Your task to perform on an android device: change the upload size in google photos Image 0: 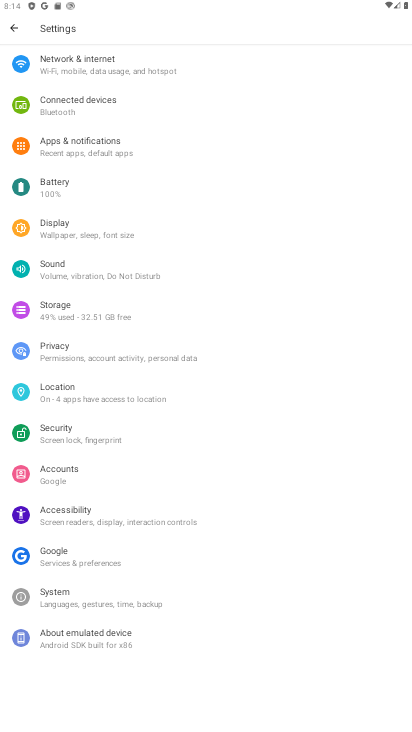
Step 0: press home button
Your task to perform on an android device: change the upload size in google photos Image 1: 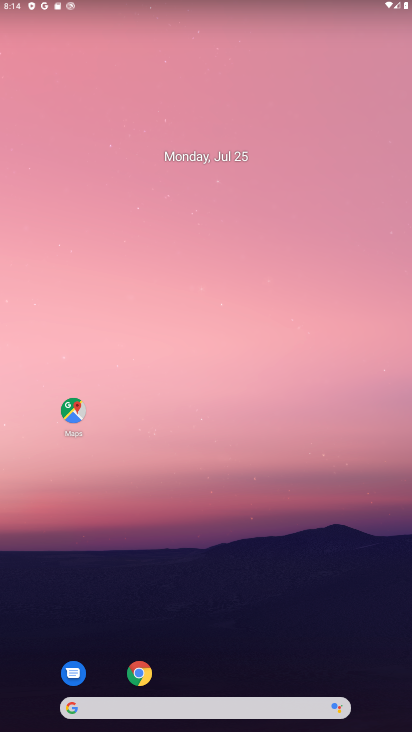
Step 1: drag from (216, 685) to (169, 14)
Your task to perform on an android device: change the upload size in google photos Image 2: 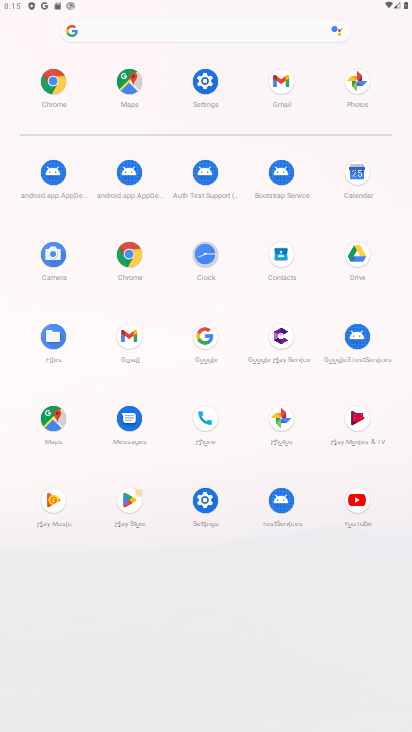
Step 2: click (270, 423)
Your task to perform on an android device: change the upload size in google photos Image 3: 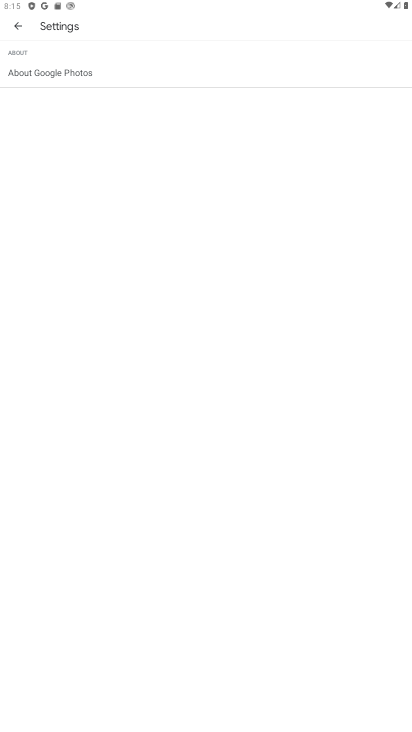
Step 3: click (17, 28)
Your task to perform on an android device: change the upload size in google photos Image 4: 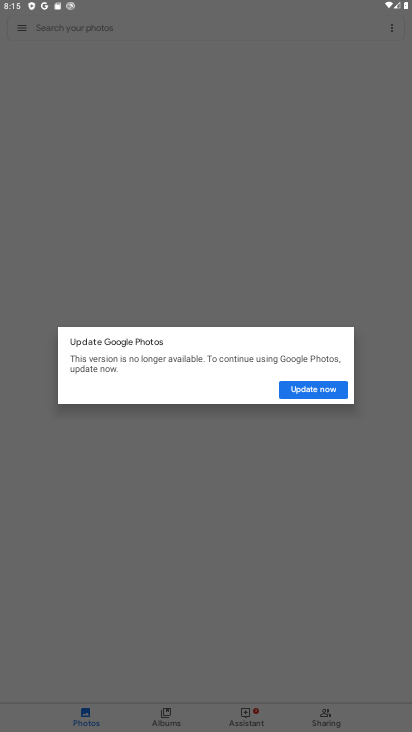
Step 4: click (303, 398)
Your task to perform on an android device: change the upload size in google photos Image 5: 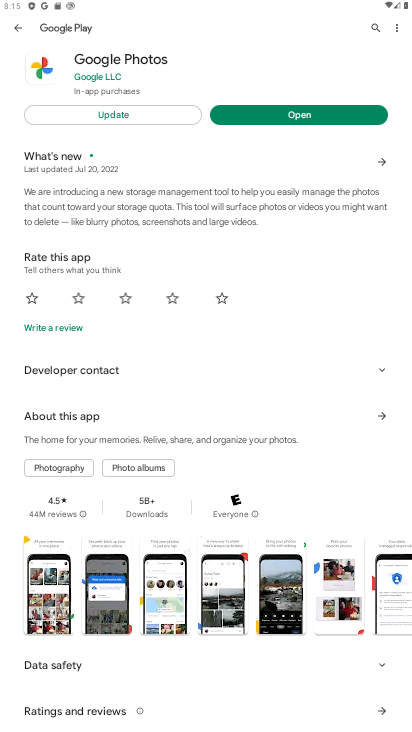
Step 5: click (172, 113)
Your task to perform on an android device: change the upload size in google photos Image 6: 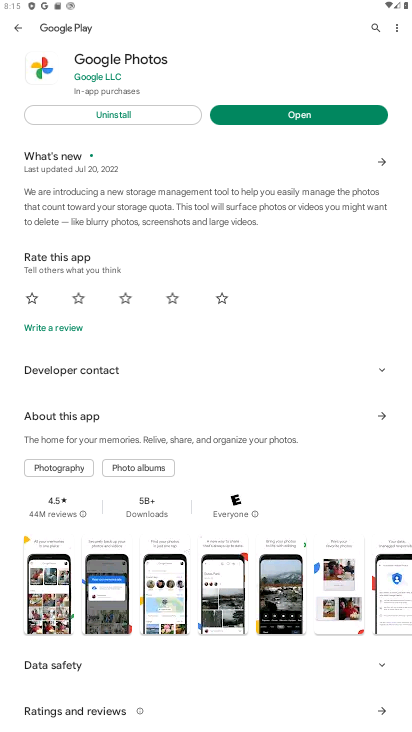
Step 6: click (282, 107)
Your task to perform on an android device: change the upload size in google photos Image 7: 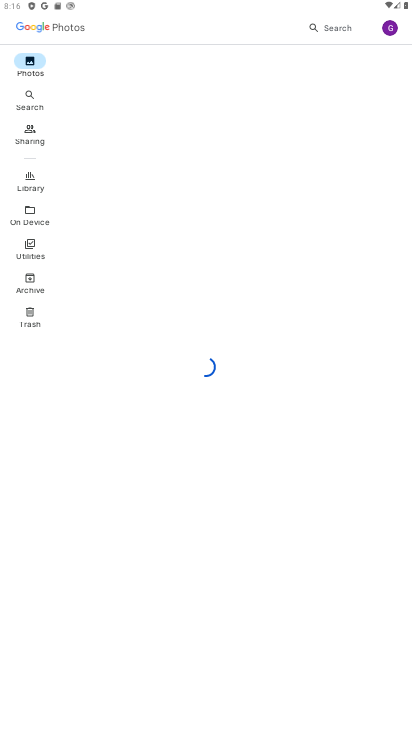
Step 7: task complete